Your task to perform on an android device: change notification settings in the gmail app Image 0: 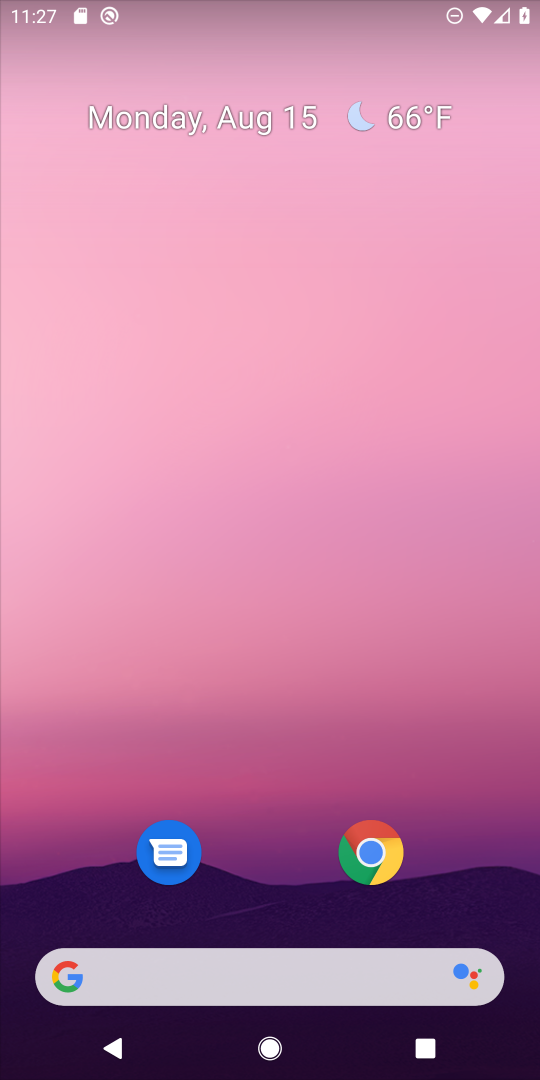
Step 0: drag from (294, 868) to (396, 79)
Your task to perform on an android device: change notification settings in the gmail app Image 1: 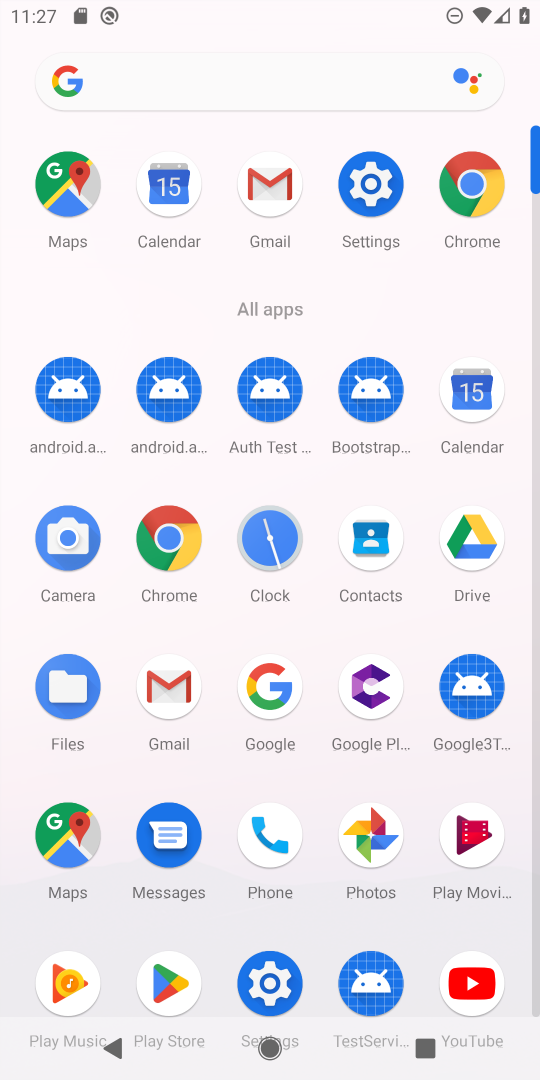
Step 1: click (267, 189)
Your task to perform on an android device: change notification settings in the gmail app Image 2: 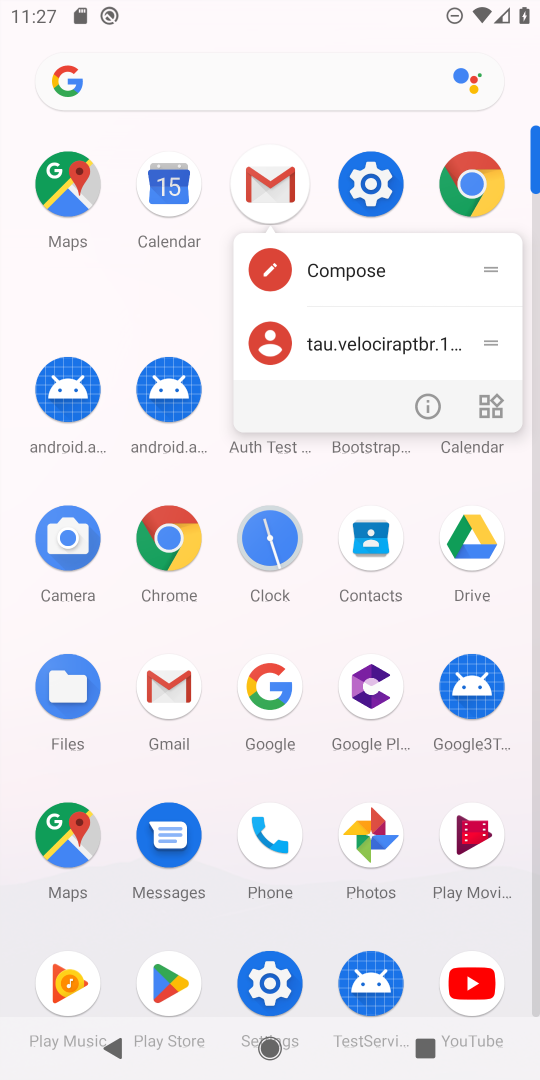
Step 2: click (437, 418)
Your task to perform on an android device: change notification settings in the gmail app Image 3: 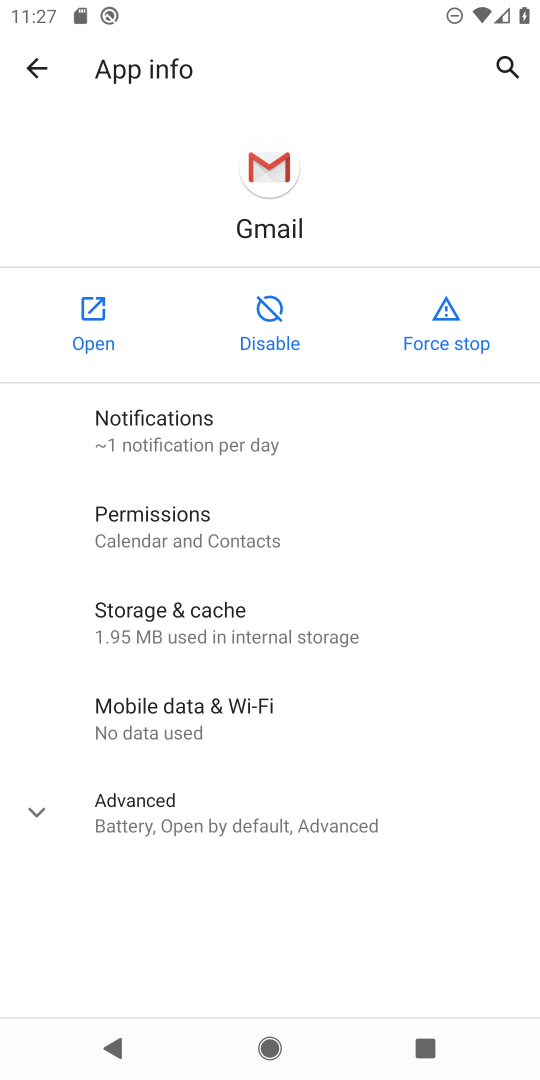
Step 3: click (209, 435)
Your task to perform on an android device: change notification settings in the gmail app Image 4: 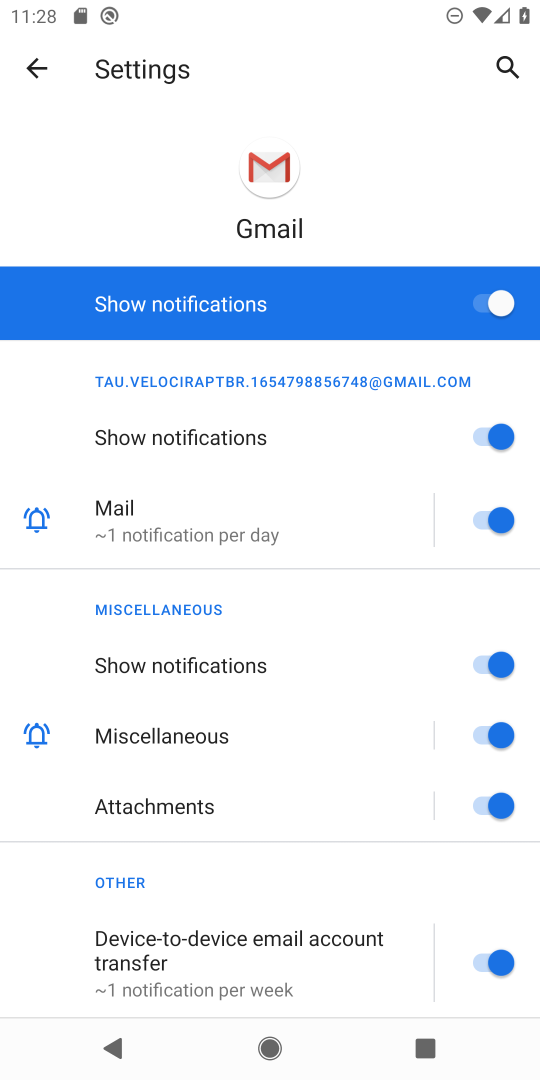
Step 4: click (506, 442)
Your task to perform on an android device: change notification settings in the gmail app Image 5: 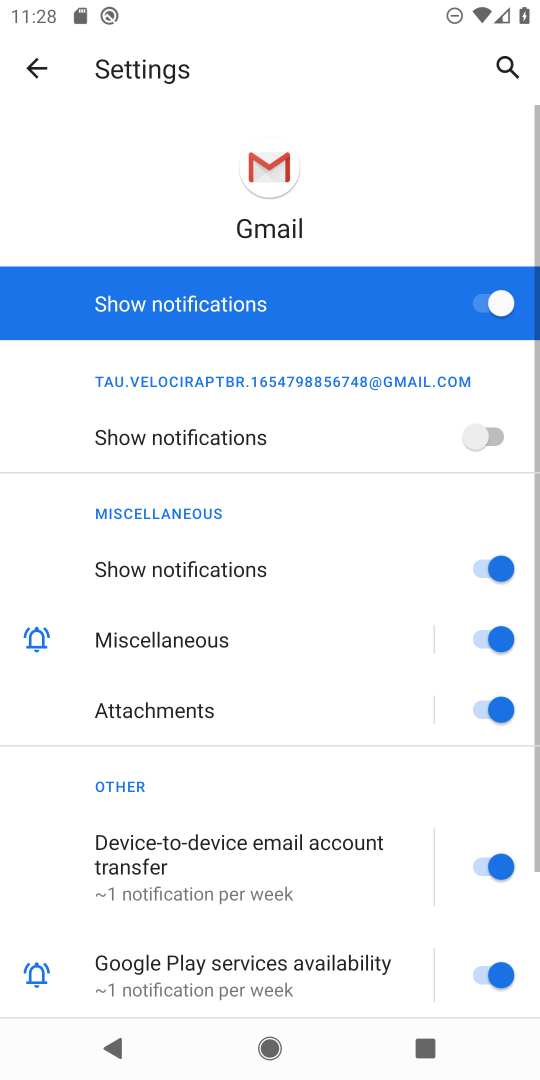
Step 5: task complete